Your task to perform on an android device: turn off data saver in the chrome app Image 0: 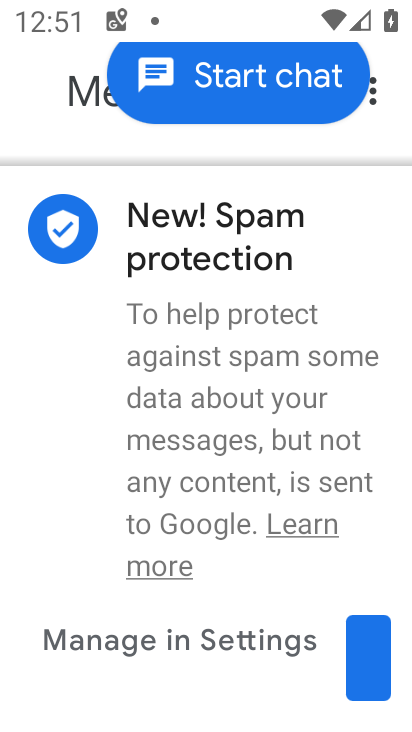
Step 0: press back button
Your task to perform on an android device: turn off data saver in the chrome app Image 1: 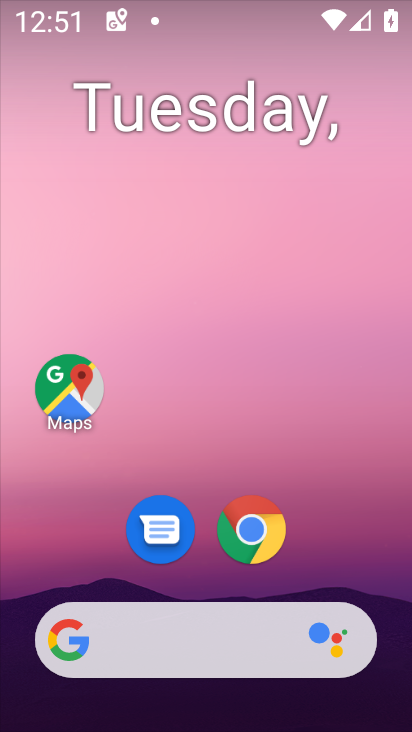
Step 1: click (241, 530)
Your task to perform on an android device: turn off data saver in the chrome app Image 2: 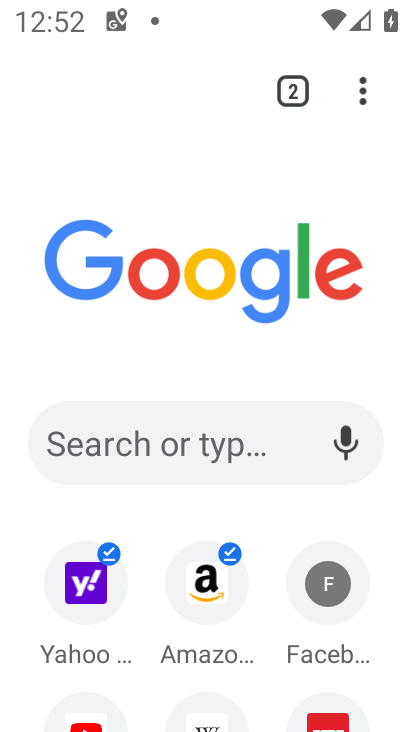
Step 2: drag from (359, 90) to (116, 555)
Your task to perform on an android device: turn off data saver in the chrome app Image 3: 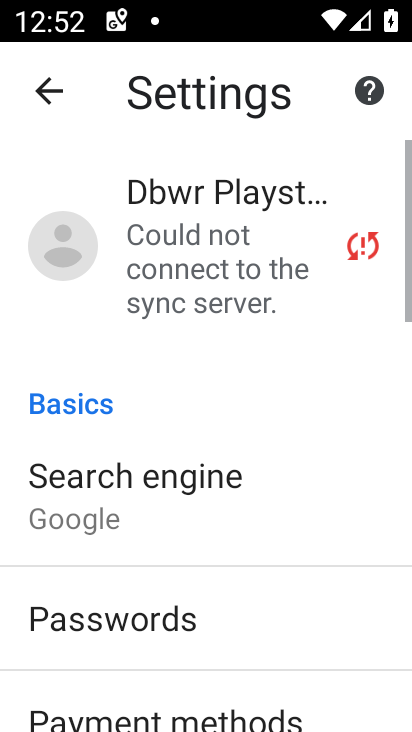
Step 3: drag from (143, 644) to (207, 125)
Your task to perform on an android device: turn off data saver in the chrome app Image 4: 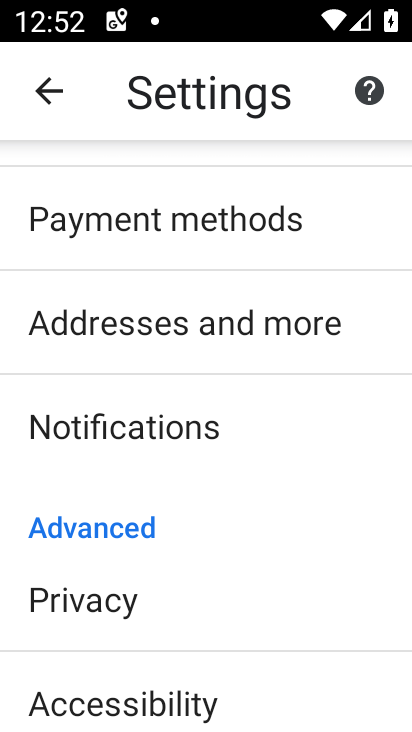
Step 4: drag from (144, 680) to (191, 128)
Your task to perform on an android device: turn off data saver in the chrome app Image 5: 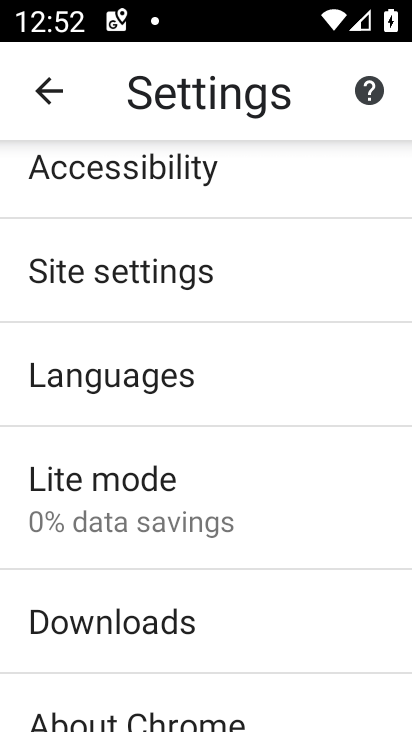
Step 5: click (94, 479)
Your task to perform on an android device: turn off data saver in the chrome app Image 6: 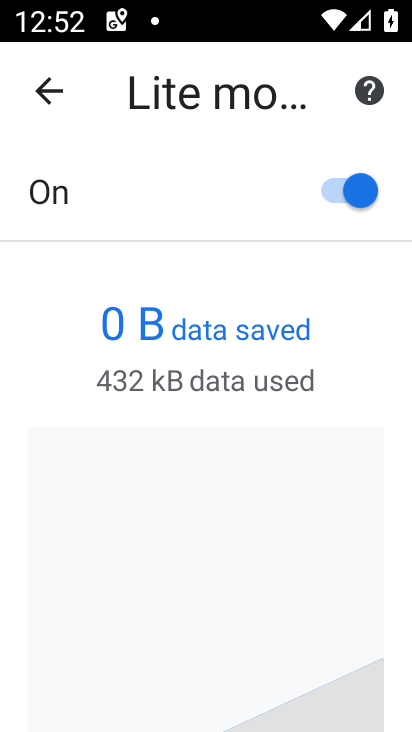
Step 6: click (356, 185)
Your task to perform on an android device: turn off data saver in the chrome app Image 7: 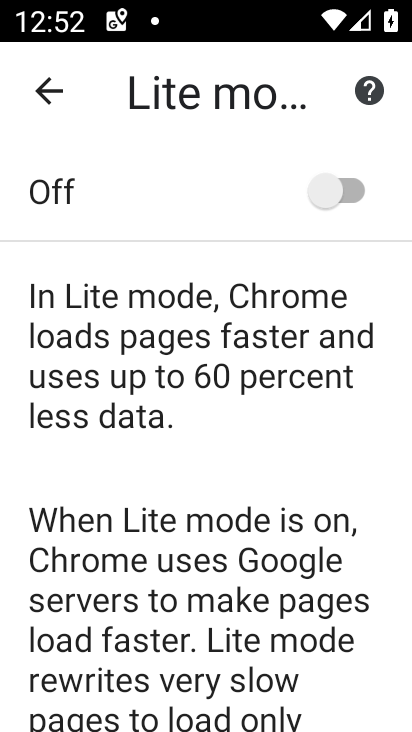
Step 7: task complete